Your task to perform on an android device: Open privacy settings Image 0: 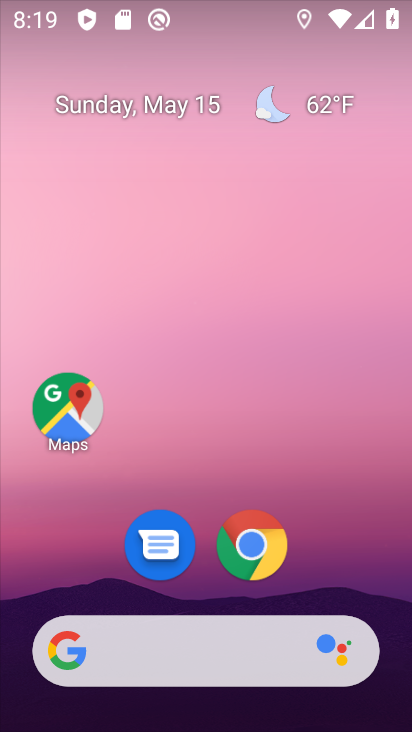
Step 0: drag from (301, 595) to (313, 197)
Your task to perform on an android device: Open privacy settings Image 1: 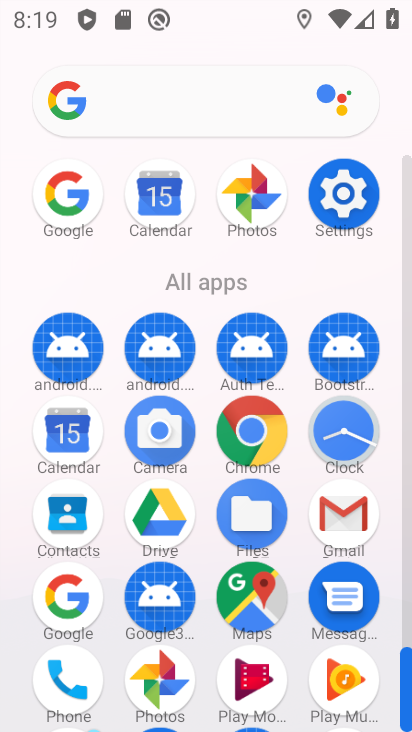
Step 1: click (355, 198)
Your task to perform on an android device: Open privacy settings Image 2: 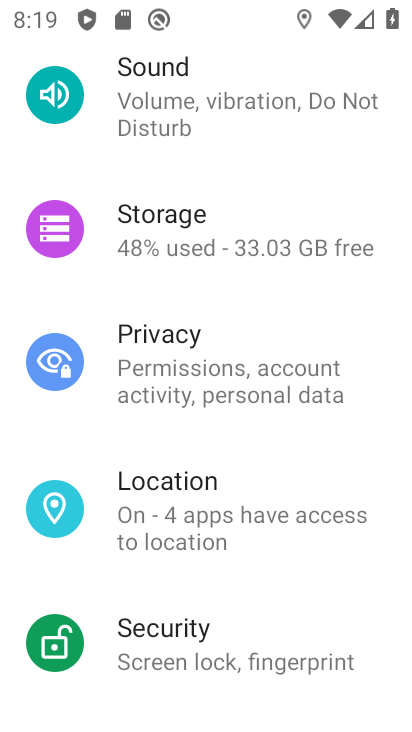
Step 2: click (215, 489)
Your task to perform on an android device: Open privacy settings Image 3: 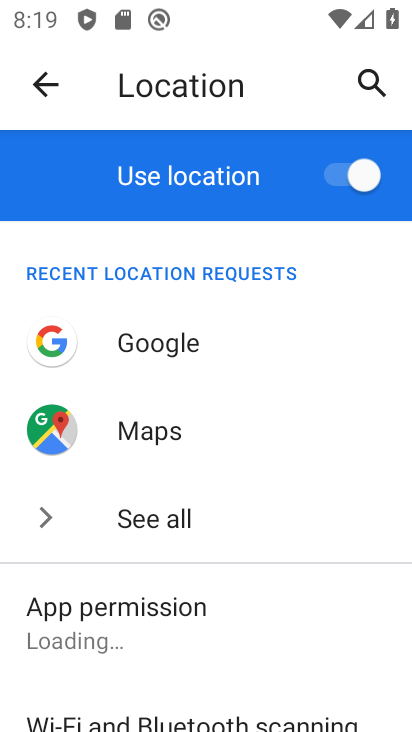
Step 3: drag from (232, 509) to (243, 461)
Your task to perform on an android device: Open privacy settings Image 4: 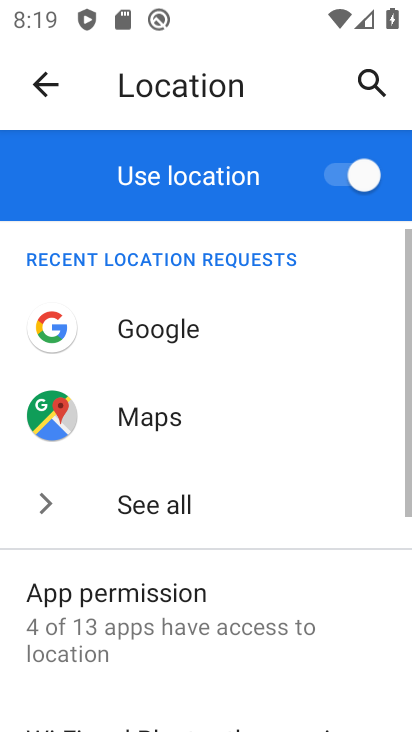
Step 4: drag from (265, 695) to (243, 271)
Your task to perform on an android device: Open privacy settings Image 5: 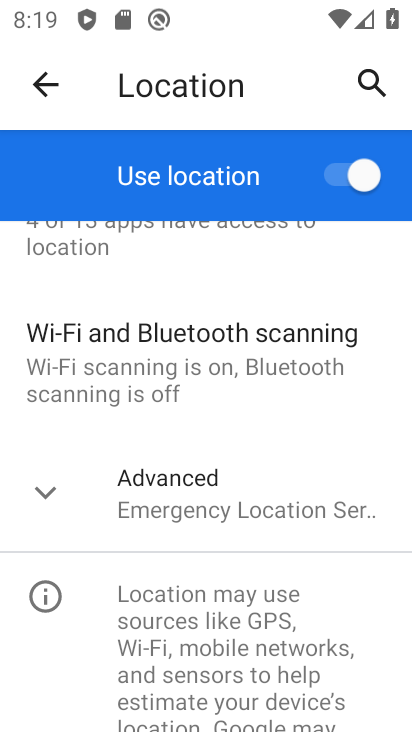
Step 5: click (176, 343)
Your task to perform on an android device: Open privacy settings Image 6: 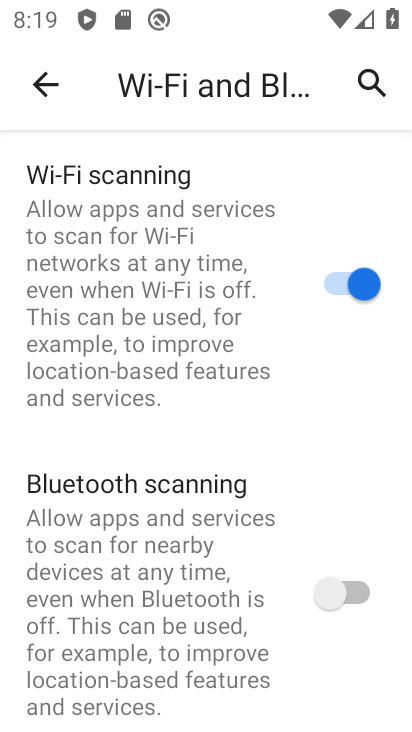
Step 6: press home button
Your task to perform on an android device: Open privacy settings Image 7: 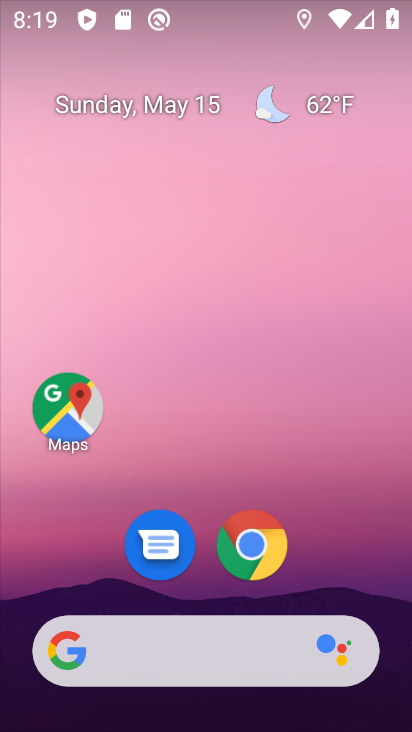
Step 7: drag from (320, 491) to (210, 30)
Your task to perform on an android device: Open privacy settings Image 8: 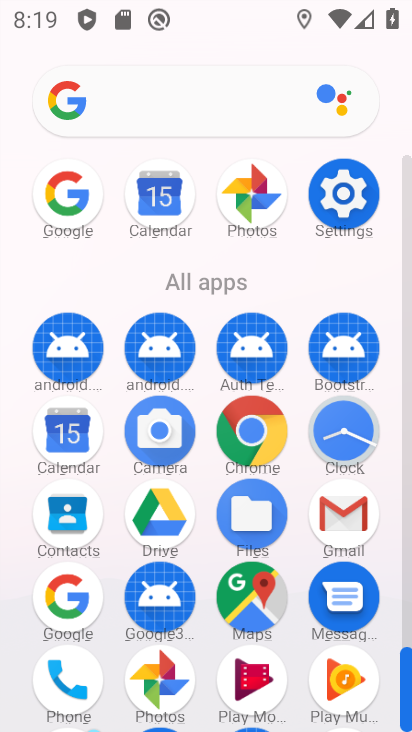
Step 8: click (343, 206)
Your task to perform on an android device: Open privacy settings Image 9: 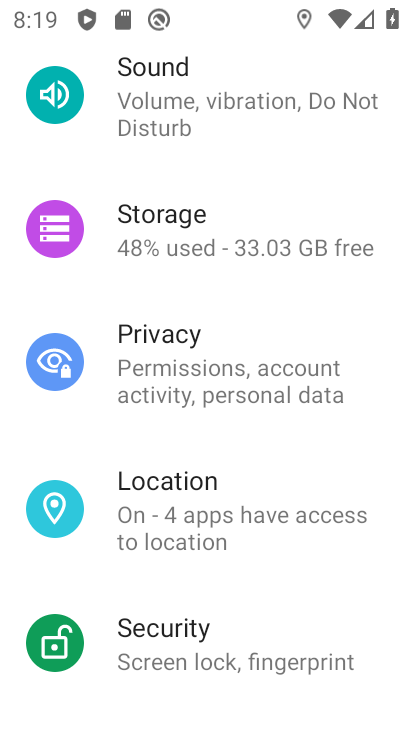
Step 9: drag from (181, 607) to (183, 148)
Your task to perform on an android device: Open privacy settings Image 10: 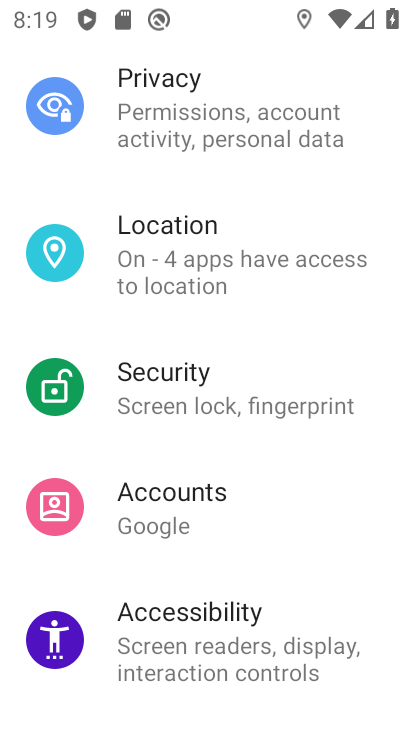
Step 10: drag from (190, 558) to (221, 221)
Your task to perform on an android device: Open privacy settings Image 11: 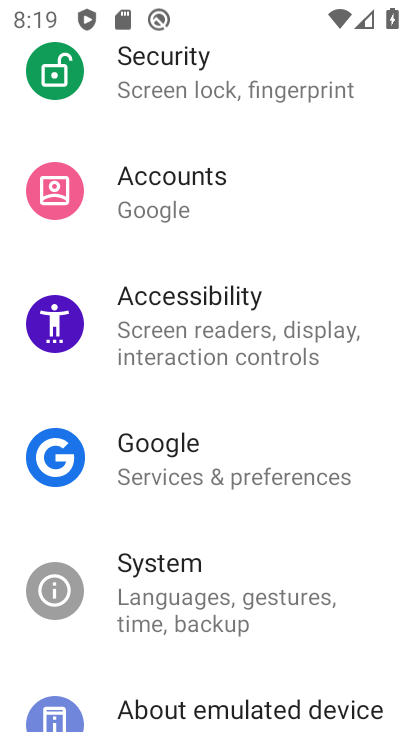
Step 11: drag from (231, 195) to (156, 687)
Your task to perform on an android device: Open privacy settings Image 12: 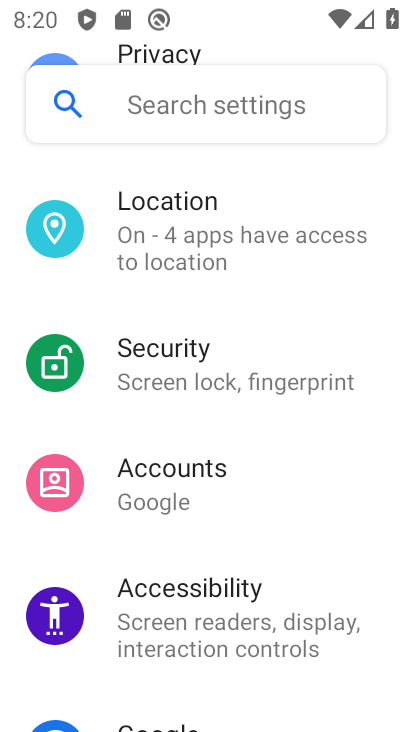
Step 12: drag from (142, 318) to (142, 650)
Your task to perform on an android device: Open privacy settings Image 13: 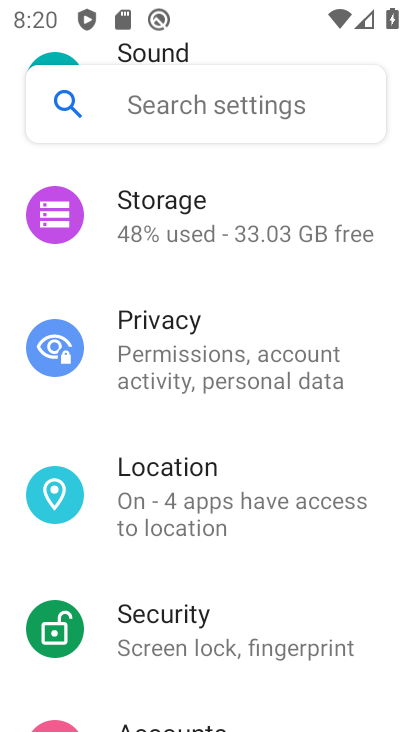
Step 13: click (148, 373)
Your task to perform on an android device: Open privacy settings Image 14: 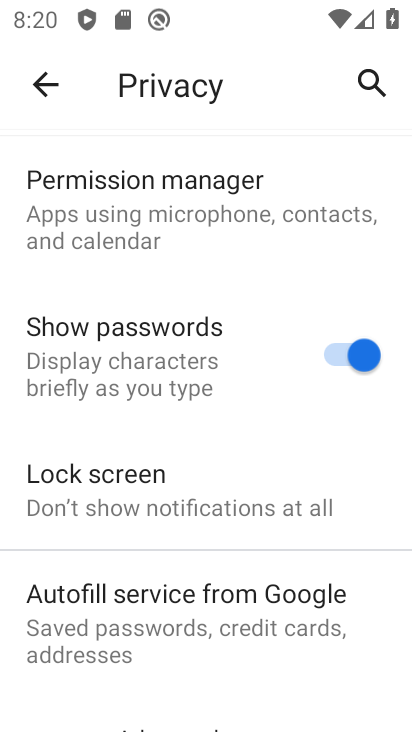
Step 14: task complete